Your task to perform on an android device: toggle notification dots Image 0: 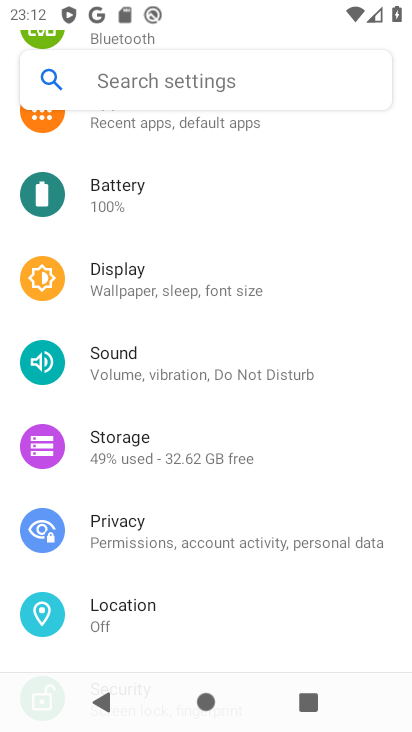
Step 0: press back button
Your task to perform on an android device: toggle notification dots Image 1: 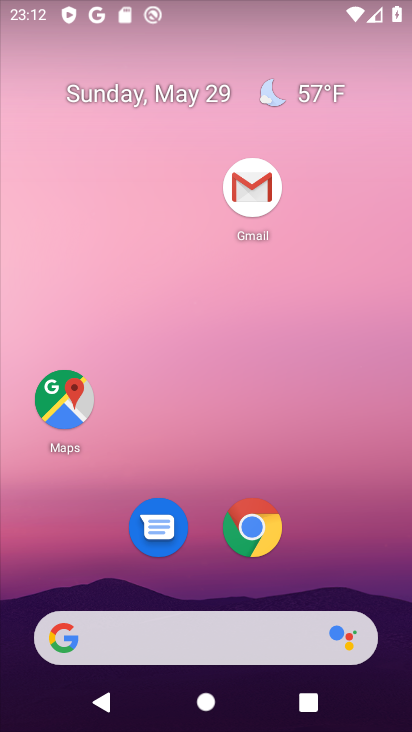
Step 1: drag from (327, 570) to (321, 73)
Your task to perform on an android device: toggle notification dots Image 2: 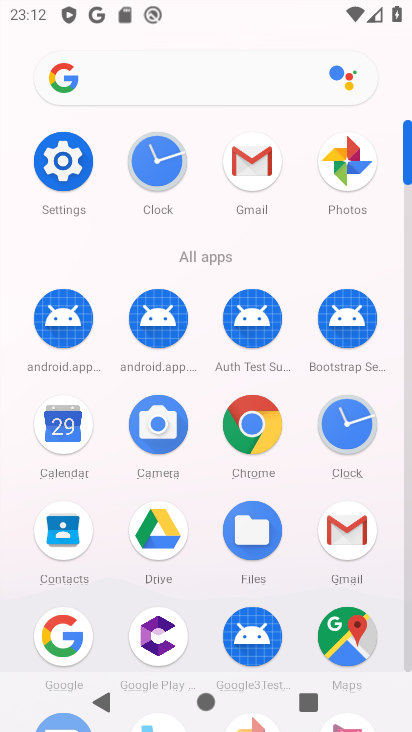
Step 2: click (61, 162)
Your task to perform on an android device: toggle notification dots Image 3: 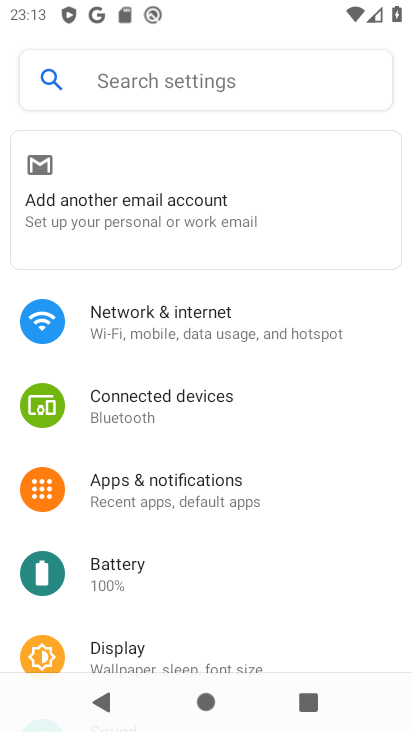
Step 3: click (153, 490)
Your task to perform on an android device: toggle notification dots Image 4: 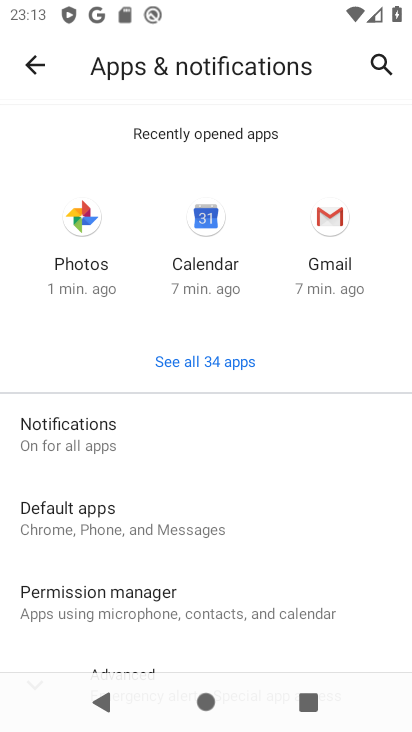
Step 4: click (93, 436)
Your task to perform on an android device: toggle notification dots Image 5: 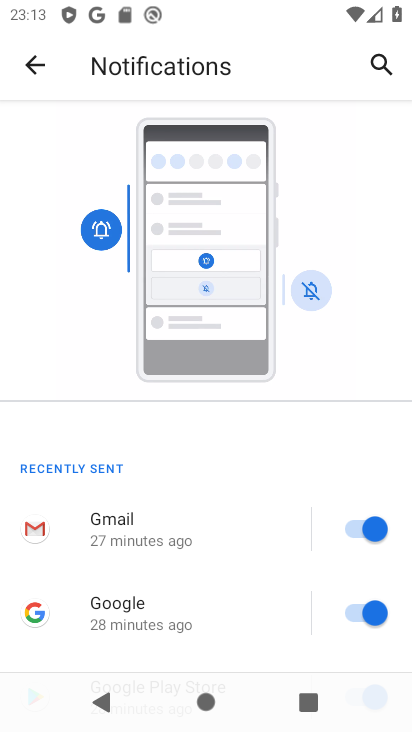
Step 5: drag from (197, 484) to (248, 337)
Your task to perform on an android device: toggle notification dots Image 6: 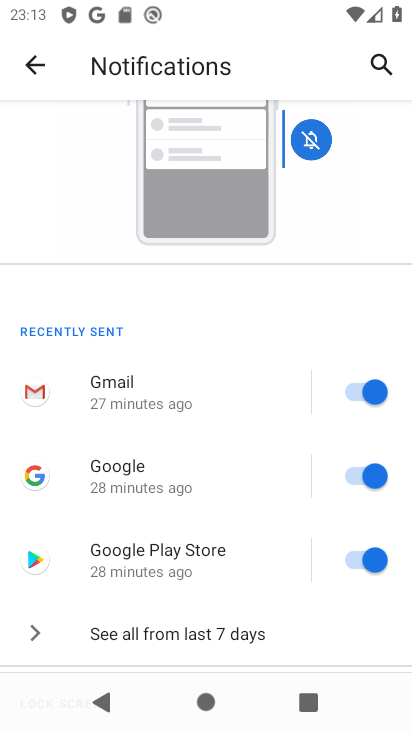
Step 6: drag from (180, 448) to (230, 339)
Your task to perform on an android device: toggle notification dots Image 7: 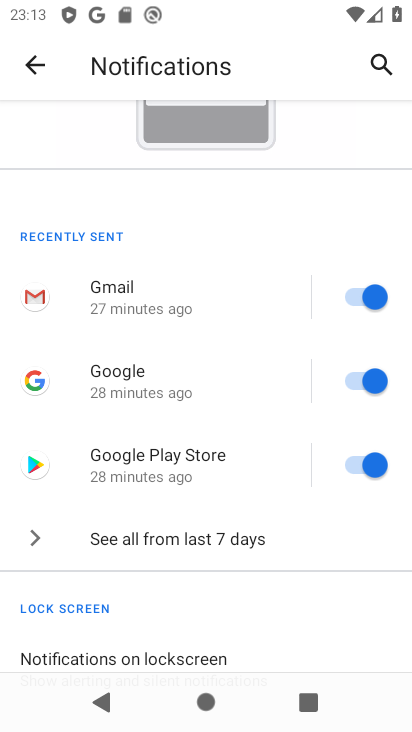
Step 7: drag from (154, 422) to (189, 335)
Your task to perform on an android device: toggle notification dots Image 8: 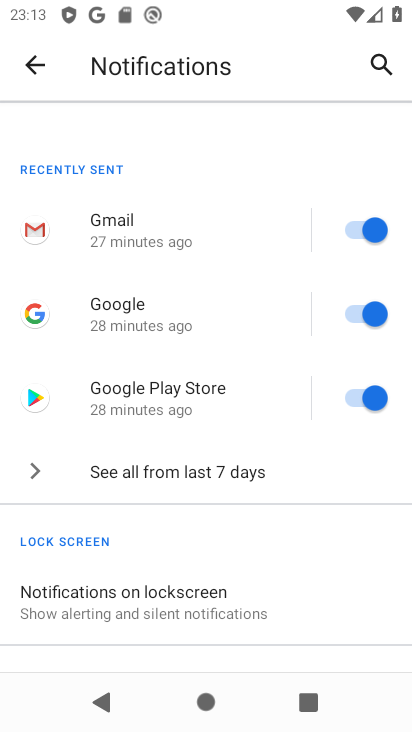
Step 8: drag from (162, 534) to (180, 436)
Your task to perform on an android device: toggle notification dots Image 9: 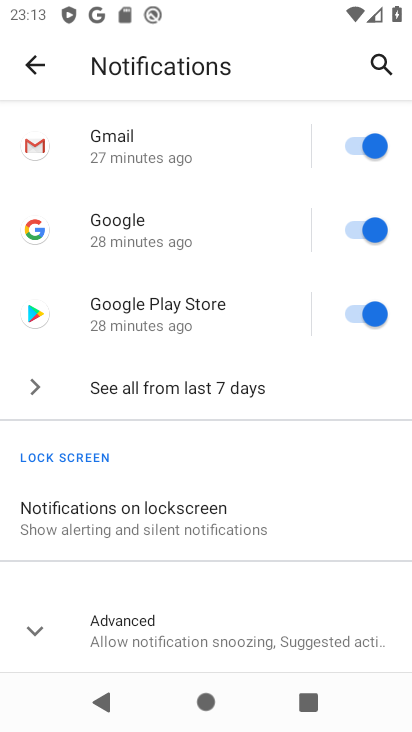
Step 9: click (160, 644)
Your task to perform on an android device: toggle notification dots Image 10: 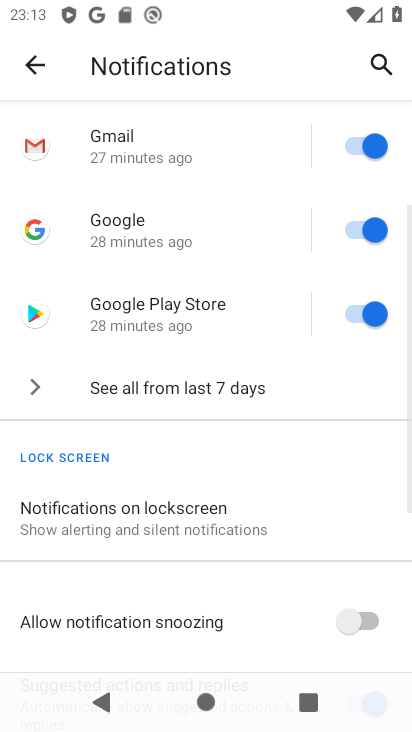
Step 10: drag from (157, 596) to (186, 457)
Your task to perform on an android device: toggle notification dots Image 11: 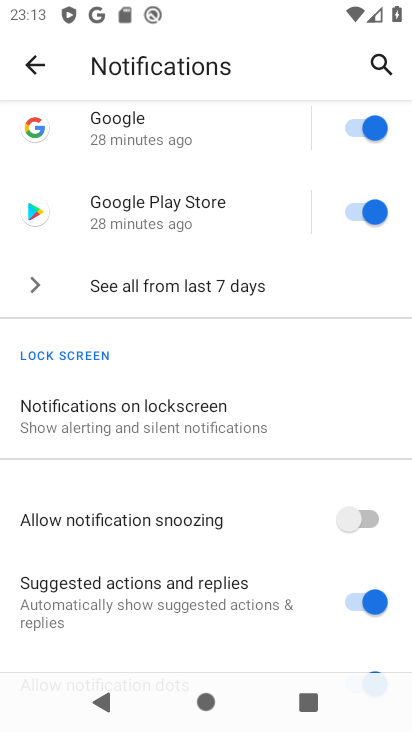
Step 11: drag from (168, 552) to (200, 453)
Your task to perform on an android device: toggle notification dots Image 12: 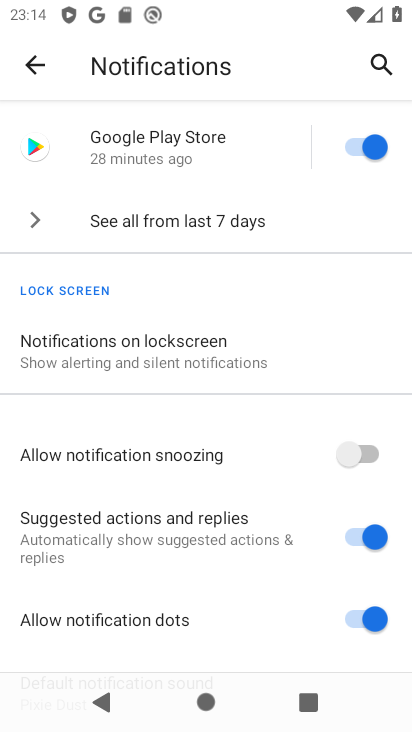
Step 12: drag from (155, 576) to (192, 468)
Your task to perform on an android device: toggle notification dots Image 13: 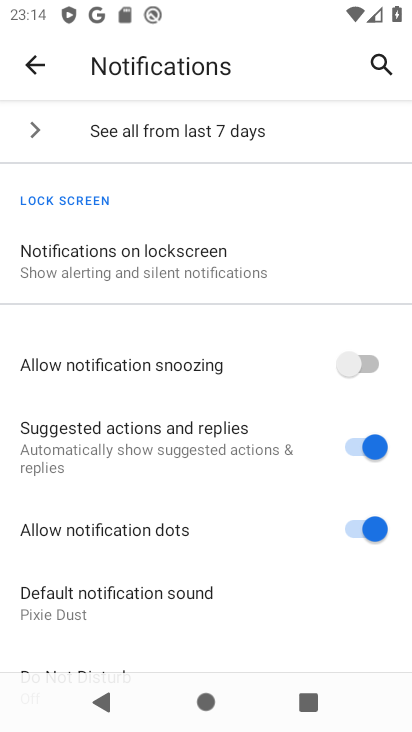
Step 13: click (350, 535)
Your task to perform on an android device: toggle notification dots Image 14: 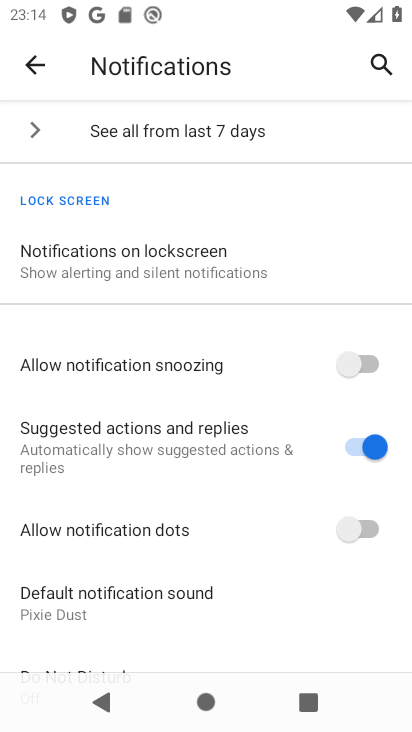
Step 14: task complete